Your task to perform on an android device: What is the recent news? Image 0: 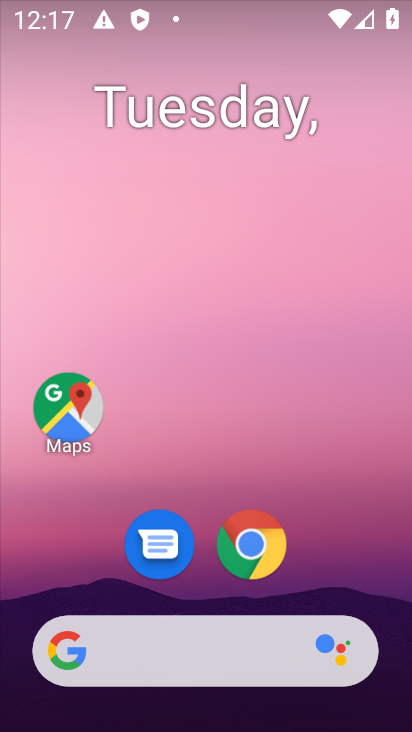
Step 0: click (249, 548)
Your task to perform on an android device: What is the recent news? Image 1: 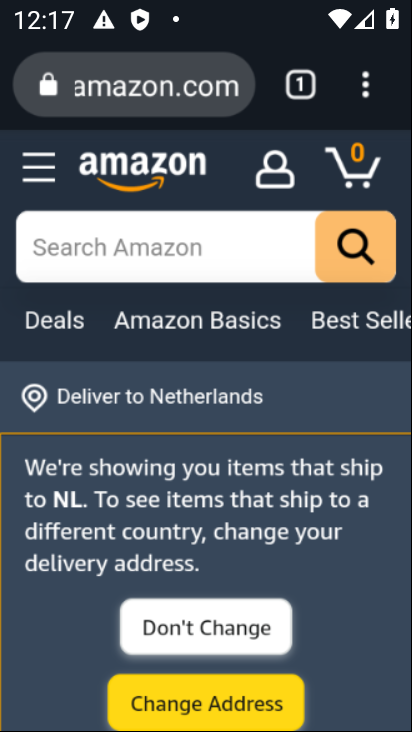
Step 1: click (179, 86)
Your task to perform on an android device: What is the recent news? Image 2: 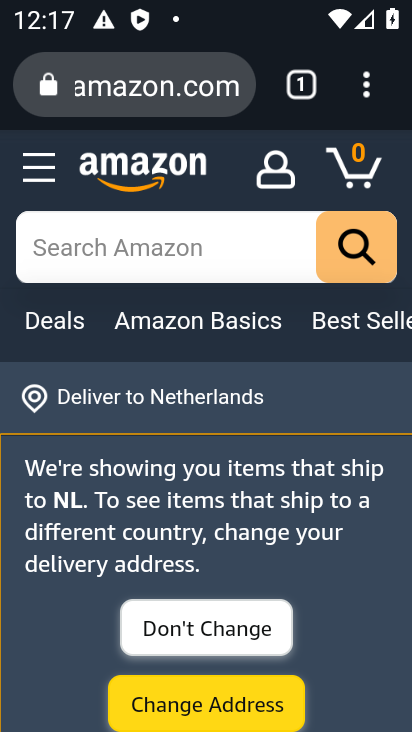
Step 2: click (179, 100)
Your task to perform on an android device: What is the recent news? Image 3: 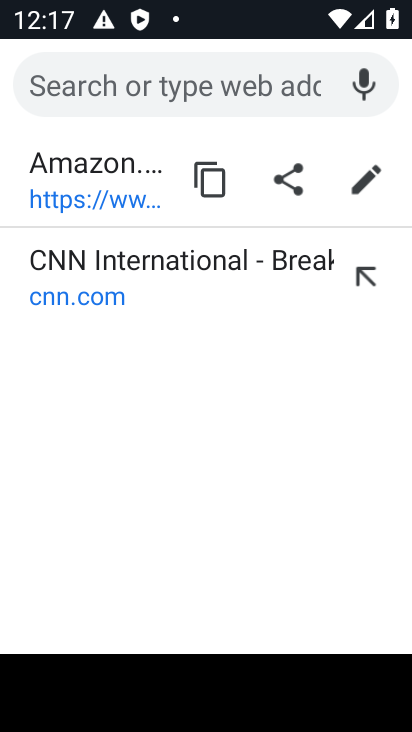
Step 3: type "news"
Your task to perform on an android device: What is the recent news? Image 4: 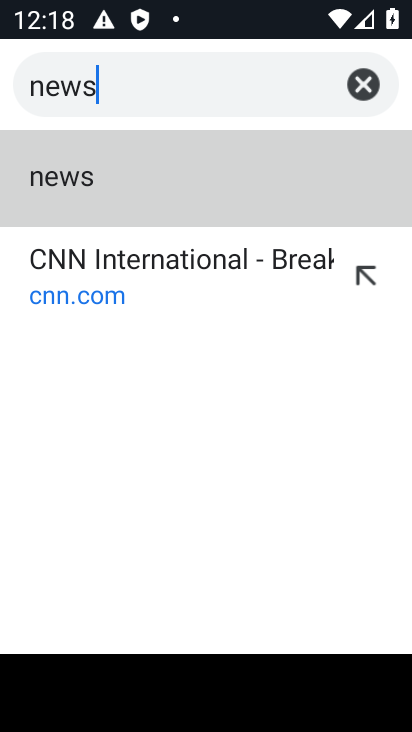
Step 4: click (76, 169)
Your task to perform on an android device: What is the recent news? Image 5: 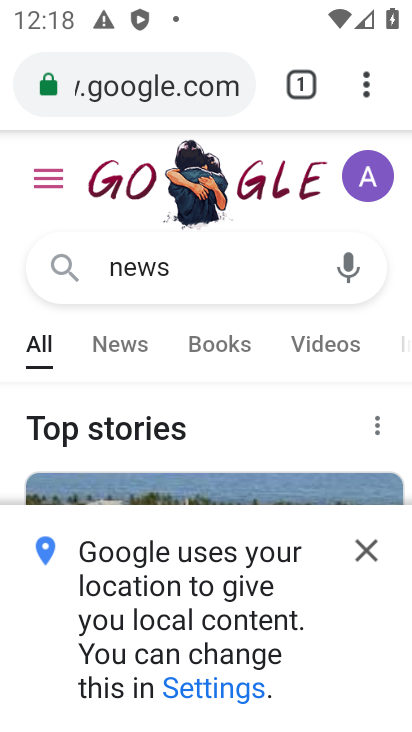
Step 5: drag from (210, 332) to (218, 30)
Your task to perform on an android device: What is the recent news? Image 6: 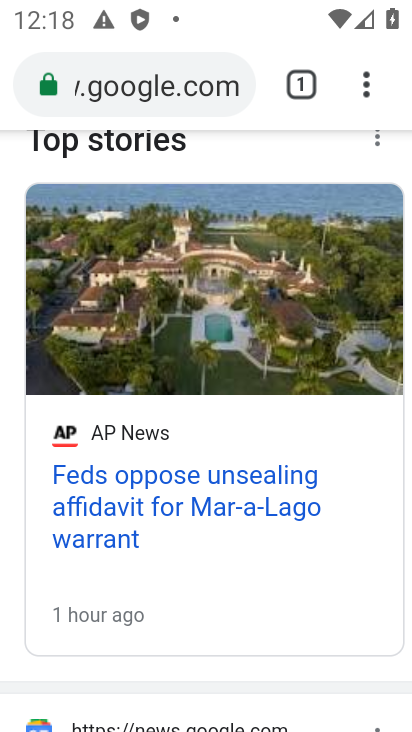
Step 6: drag from (211, 523) to (250, 122)
Your task to perform on an android device: What is the recent news? Image 7: 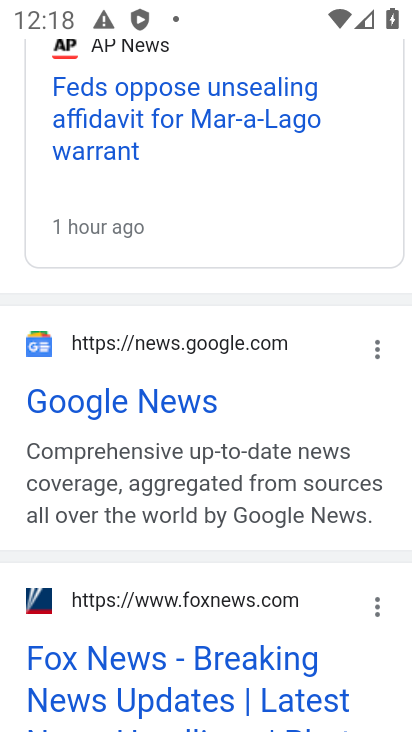
Step 7: click (144, 403)
Your task to perform on an android device: What is the recent news? Image 8: 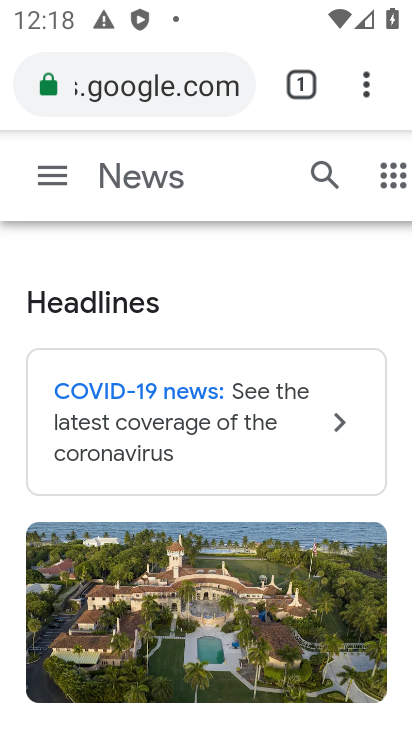
Step 8: task complete